Your task to perform on an android device: Open Google Chrome Image 0: 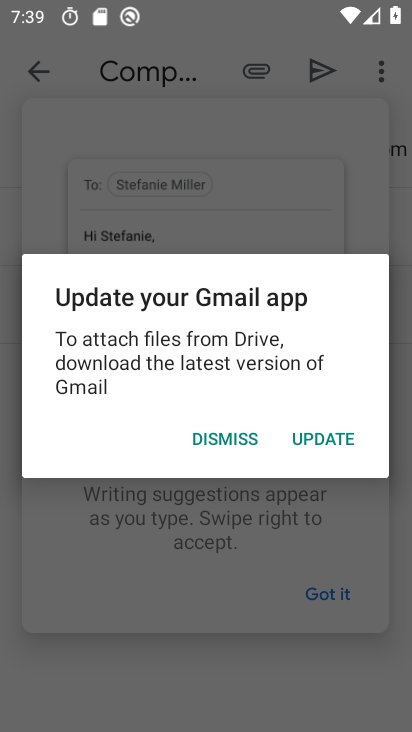
Step 0: press home button
Your task to perform on an android device: Open Google Chrome Image 1: 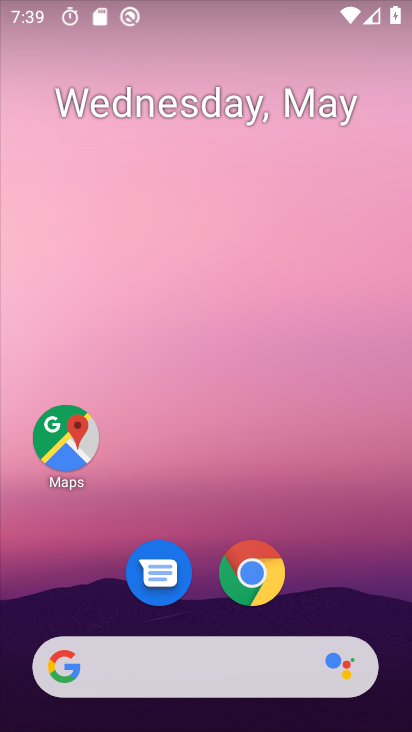
Step 1: click (248, 576)
Your task to perform on an android device: Open Google Chrome Image 2: 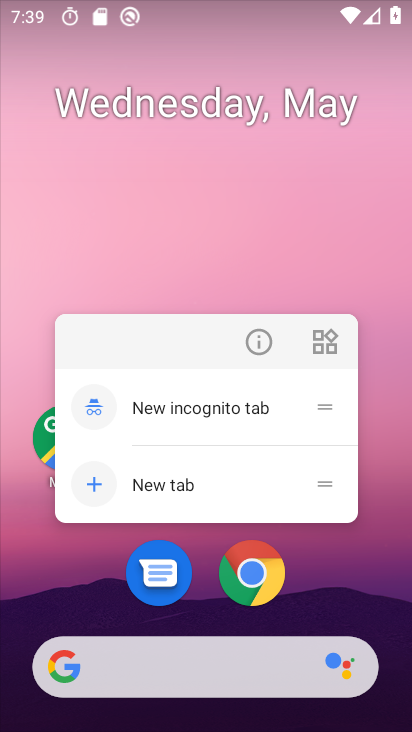
Step 2: click (248, 576)
Your task to perform on an android device: Open Google Chrome Image 3: 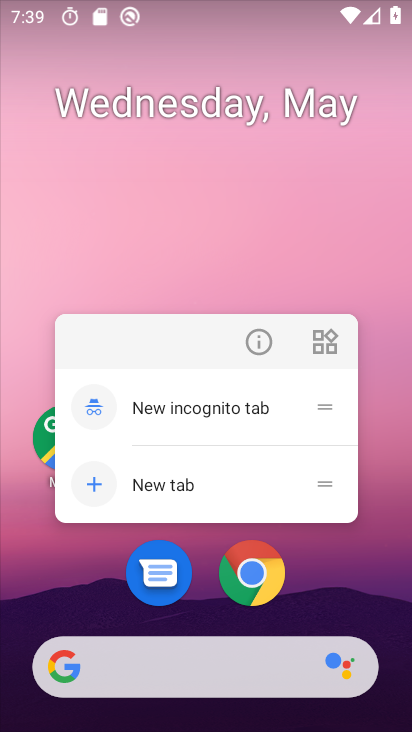
Step 3: click (248, 576)
Your task to perform on an android device: Open Google Chrome Image 4: 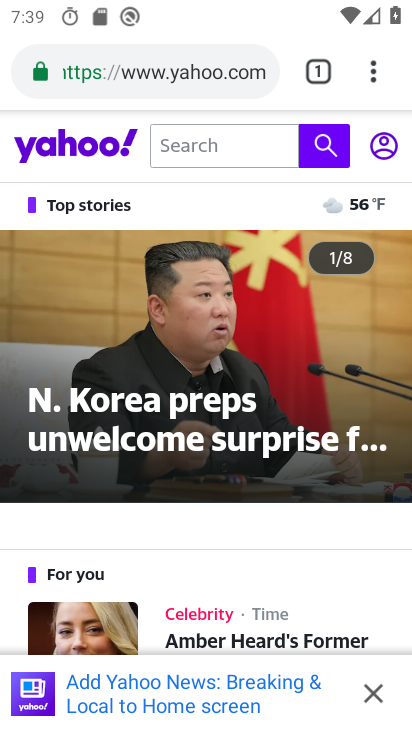
Step 4: task complete